Your task to perform on an android device: Do I have any events today? Image 0: 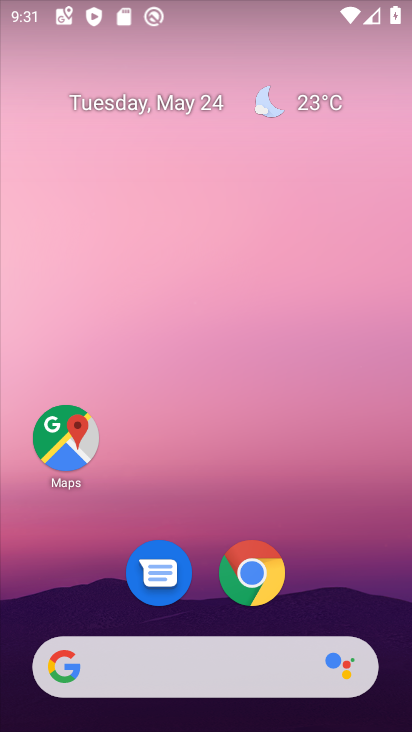
Step 0: drag from (379, 615) to (339, 19)
Your task to perform on an android device: Do I have any events today? Image 1: 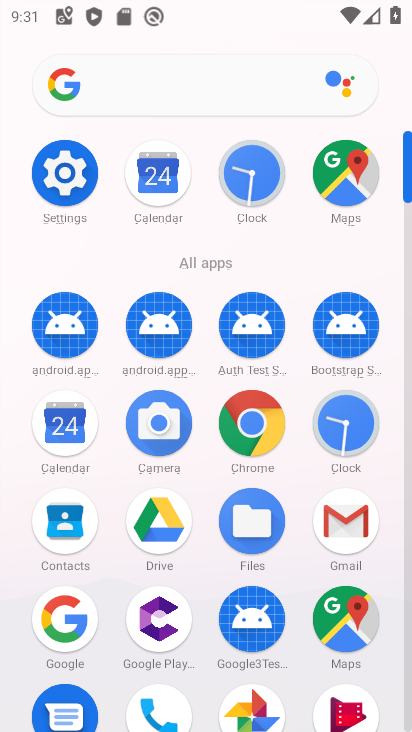
Step 1: click (406, 684)
Your task to perform on an android device: Do I have any events today? Image 2: 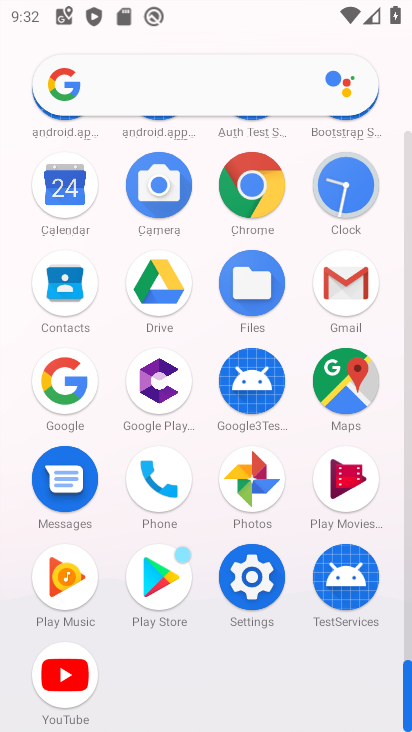
Step 2: click (63, 184)
Your task to perform on an android device: Do I have any events today? Image 3: 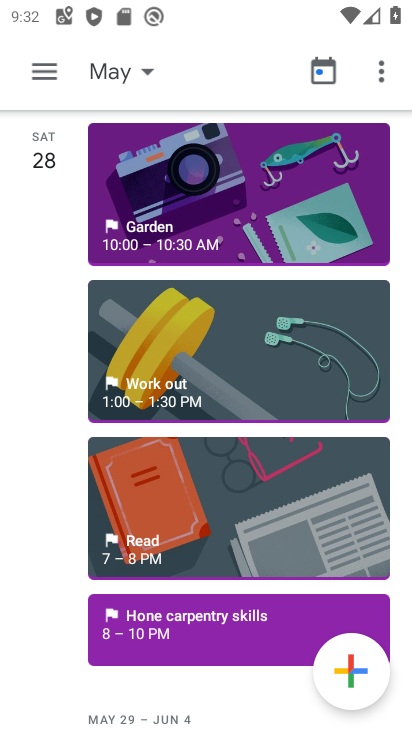
Step 3: click (45, 78)
Your task to perform on an android device: Do I have any events today? Image 4: 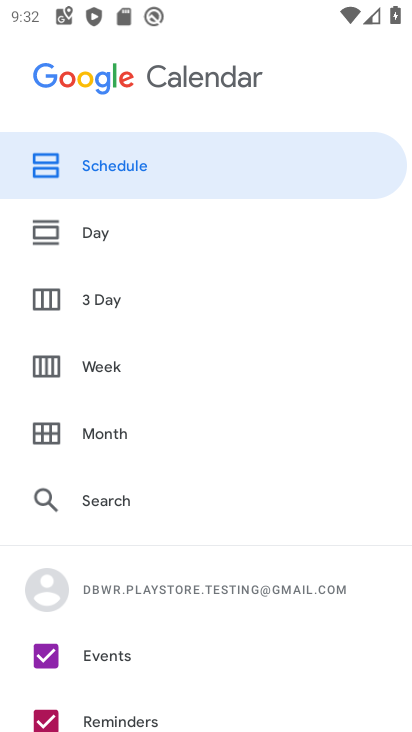
Step 4: click (71, 230)
Your task to perform on an android device: Do I have any events today? Image 5: 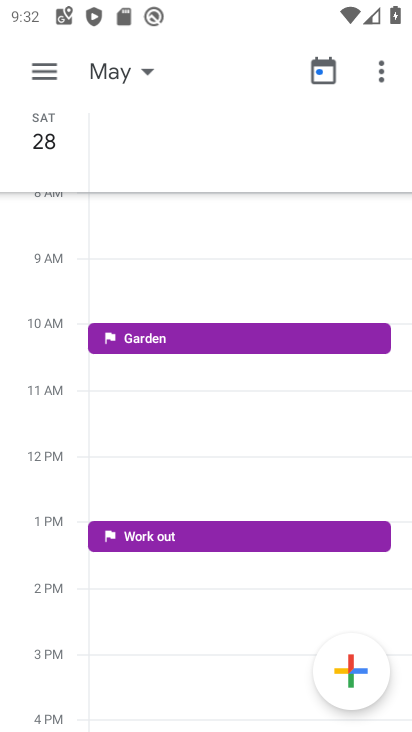
Step 5: click (145, 71)
Your task to perform on an android device: Do I have any events today? Image 6: 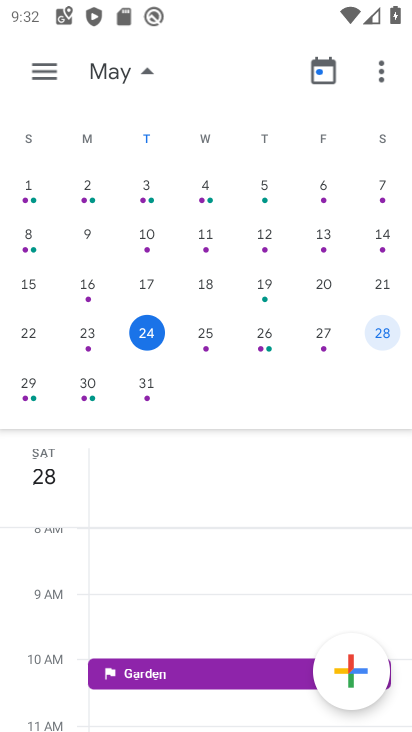
Step 6: click (144, 325)
Your task to perform on an android device: Do I have any events today? Image 7: 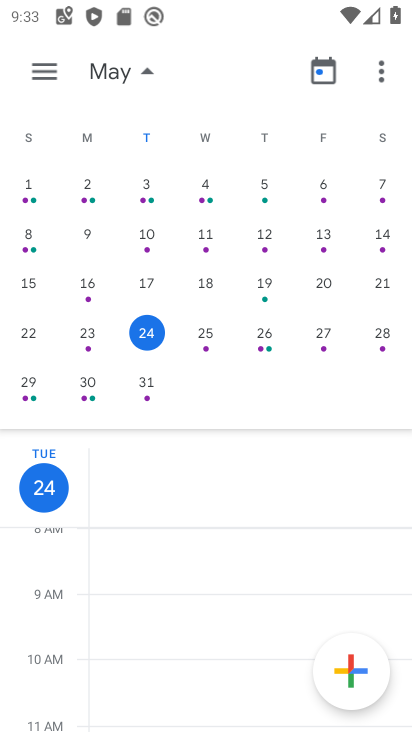
Step 7: task complete